Your task to perform on an android device: Go to Google maps Image 0: 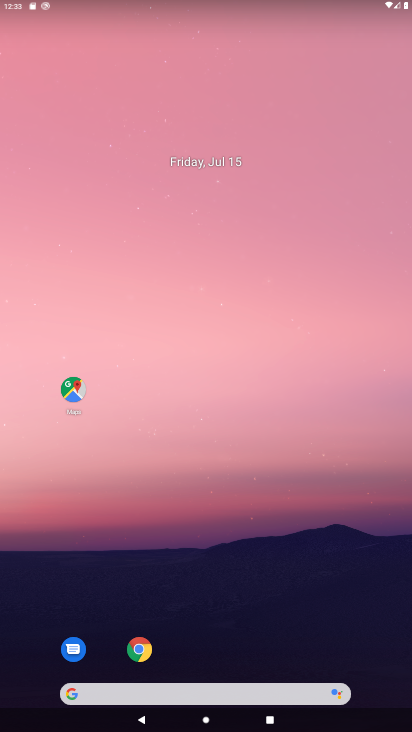
Step 0: drag from (201, 696) to (144, 120)
Your task to perform on an android device: Go to Google maps Image 1: 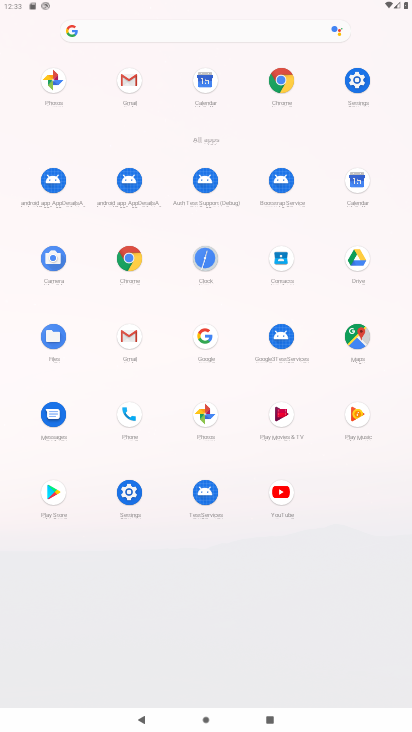
Step 1: click (359, 334)
Your task to perform on an android device: Go to Google maps Image 2: 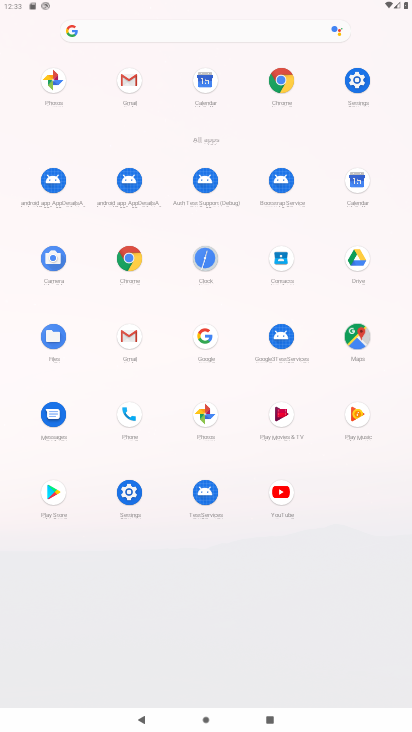
Step 2: click (359, 336)
Your task to perform on an android device: Go to Google maps Image 3: 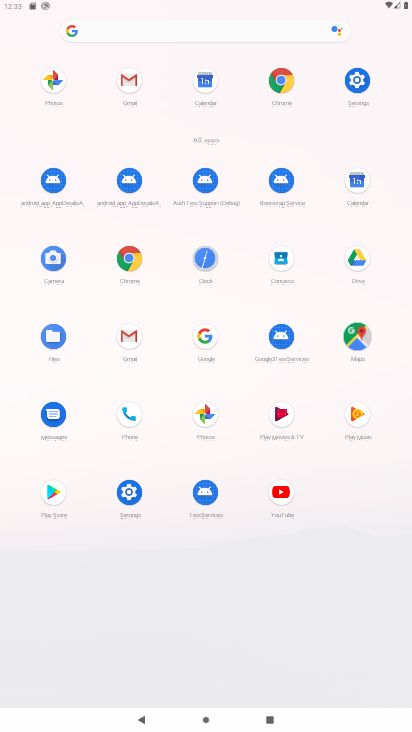
Step 3: click (359, 339)
Your task to perform on an android device: Go to Google maps Image 4: 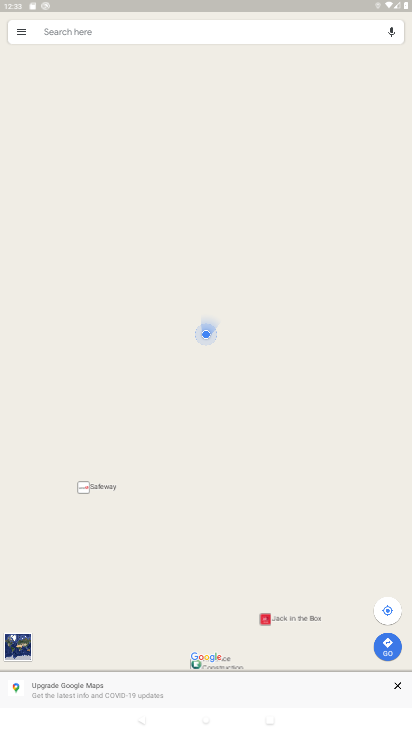
Step 4: task complete